Your task to perform on an android device: When is my next meeting? Image 0: 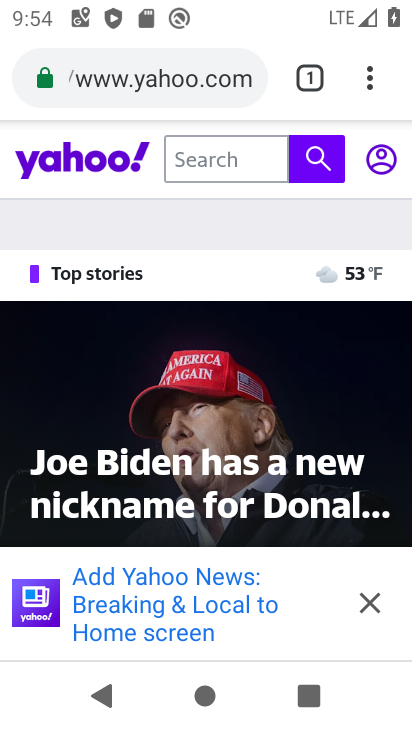
Step 0: press home button
Your task to perform on an android device: When is my next meeting? Image 1: 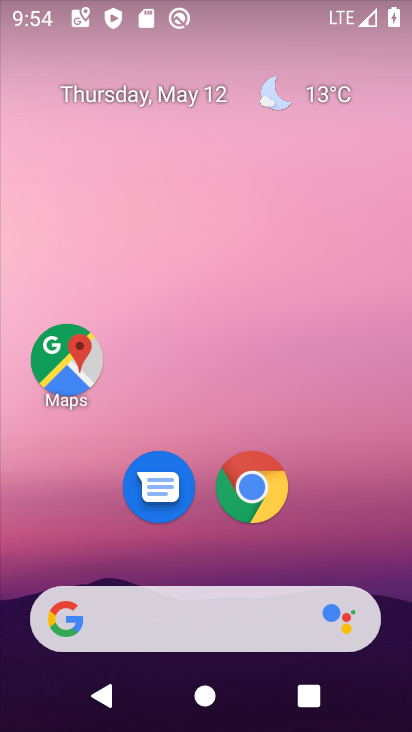
Step 1: drag from (340, 577) to (293, 15)
Your task to perform on an android device: When is my next meeting? Image 2: 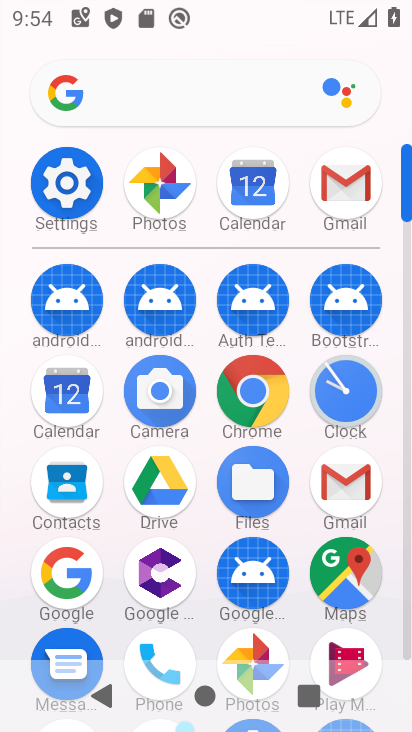
Step 2: click (246, 182)
Your task to perform on an android device: When is my next meeting? Image 3: 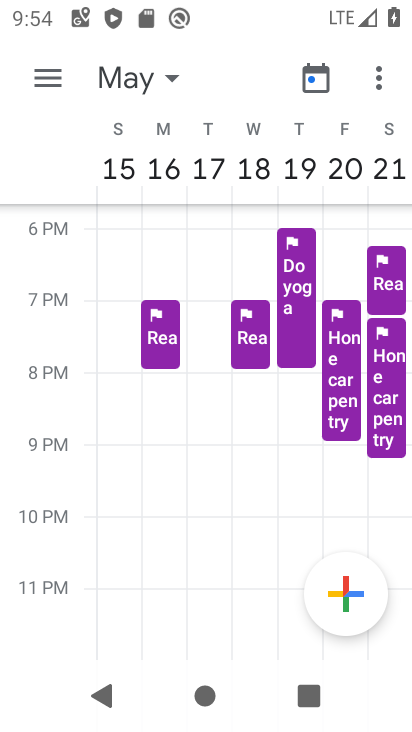
Step 3: click (46, 79)
Your task to perform on an android device: When is my next meeting? Image 4: 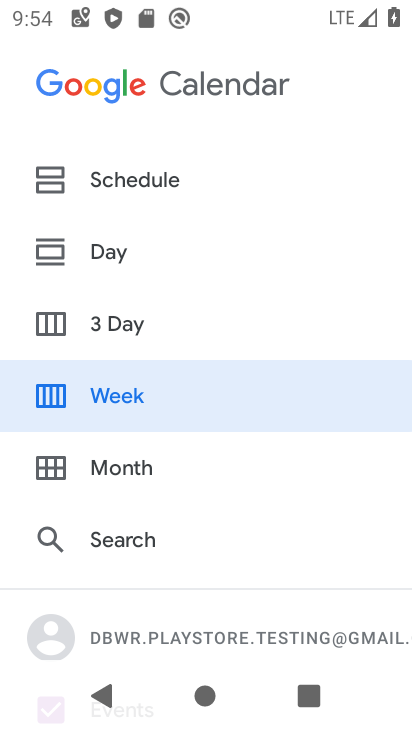
Step 4: click (78, 173)
Your task to perform on an android device: When is my next meeting? Image 5: 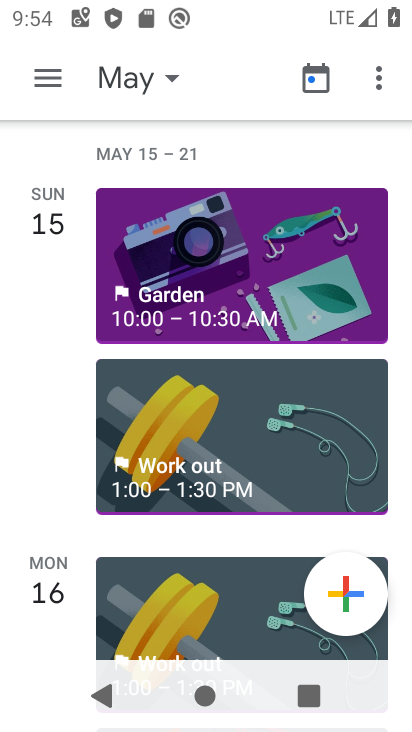
Step 5: drag from (163, 287) to (164, 577)
Your task to perform on an android device: When is my next meeting? Image 6: 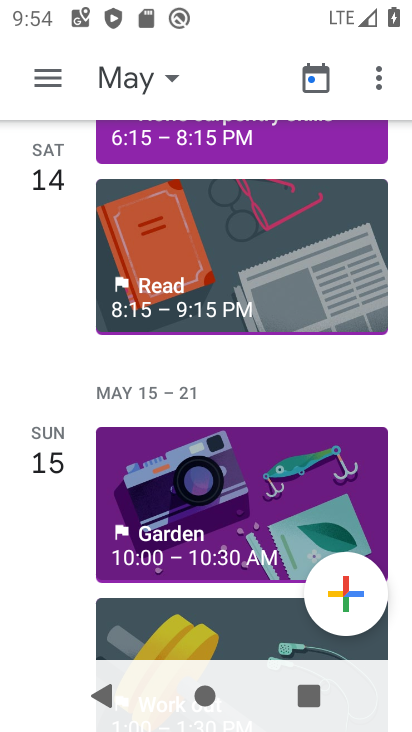
Step 6: drag from (188, 259) to (160, 611)
Your task to perform on an android device: When is my next meeting? Image 7: 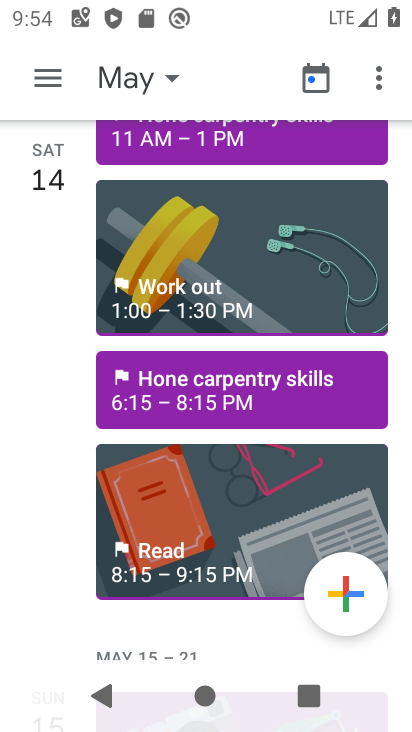
Step 7: drag from (179, 257) to (179, 639)
Your task to perform on an android device: When is my next meeting? Image 8: 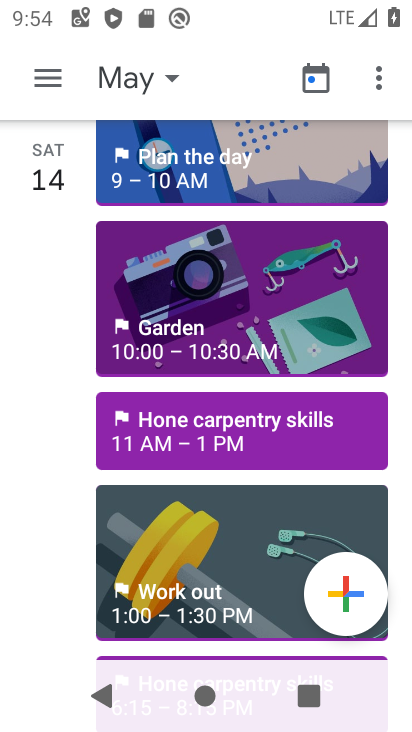
Step 8: drag from (212, 253) to (206, 670)
Your task to perform on an android device: When is my next meeting? Image 9: 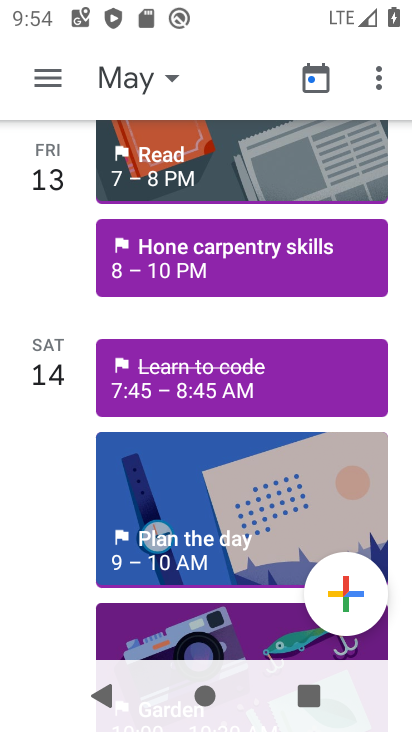
Step 9: drag from (198, 498) to (193, 551)
Your task to perform on an android device: When is my next meeting? Image 10: 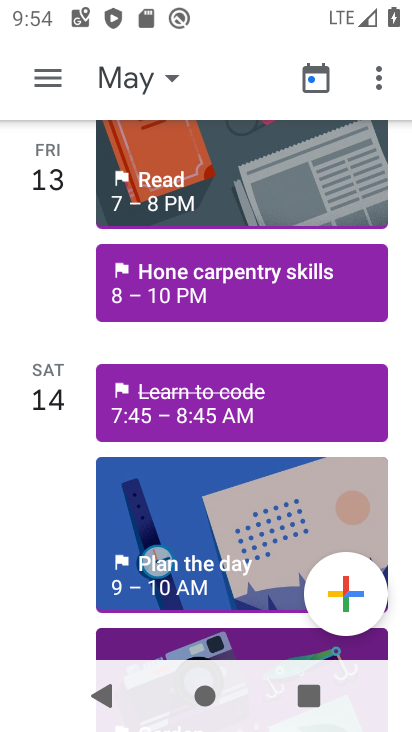
Step 10: click (186, 291)
Your task to perform on an android device: When is my next meeting? Image 11: 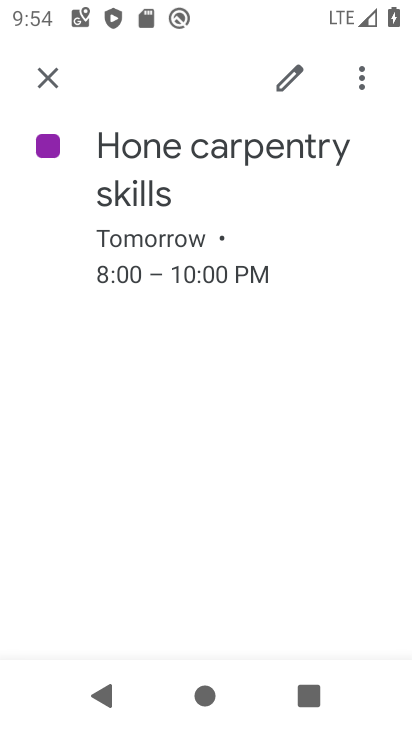
Step 11: task complete